Your task to perform on an android device: Show me popular games on the Play Store Image 0: 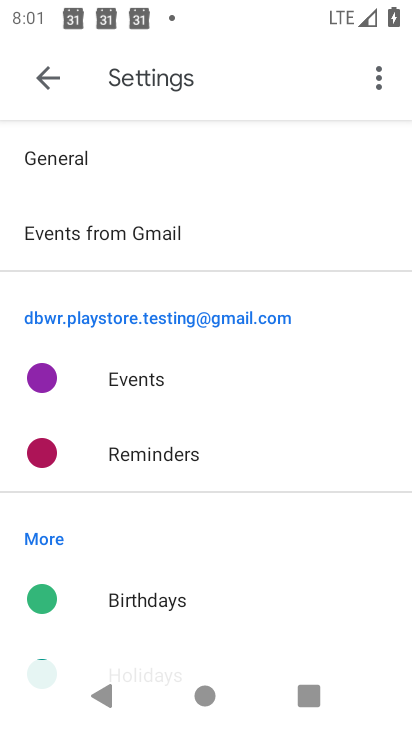
Step 0: press home button
Your task to perform on an android device: Show me popular games on the Play Store Image 1: 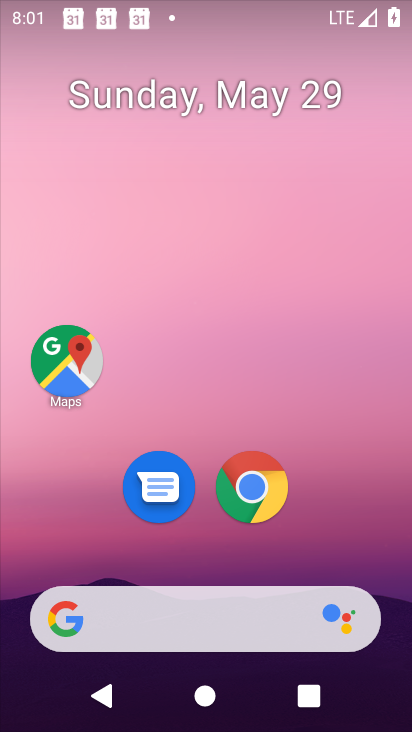
Step 1: drag from (23, 599) to (78, 2)
Your task to perform on an android device: Show me popular games on the Play Store Image 2: 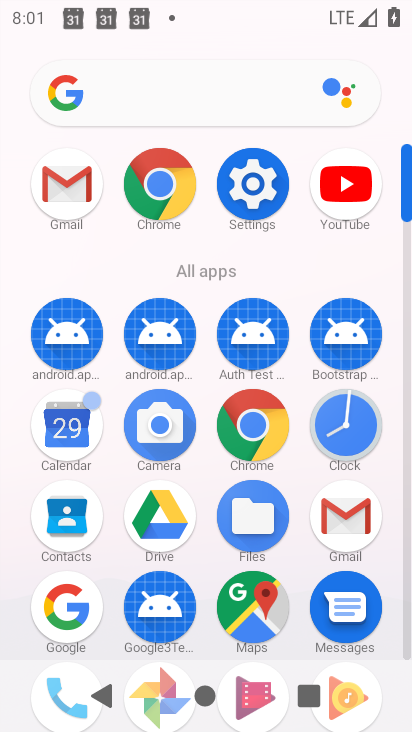
Step 2: drag from (262, 570) to (272, 264)
Your task to perform on an android device: Show me popular games on the Play Store Image 3: 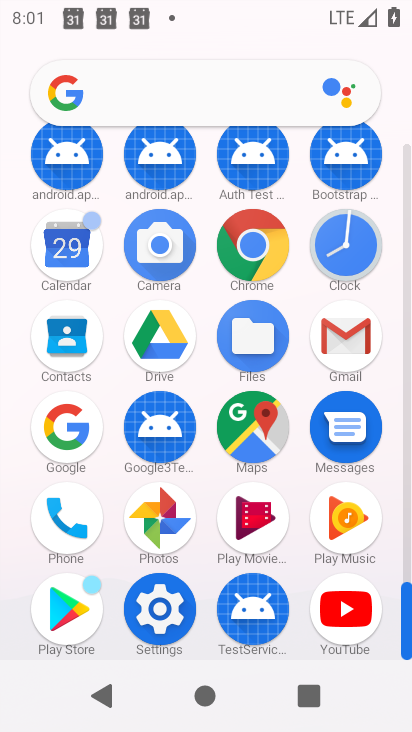
Step 3: click (58, 621)
Your task to perform on an android device: Show me popular games on the Play Store Image 4: 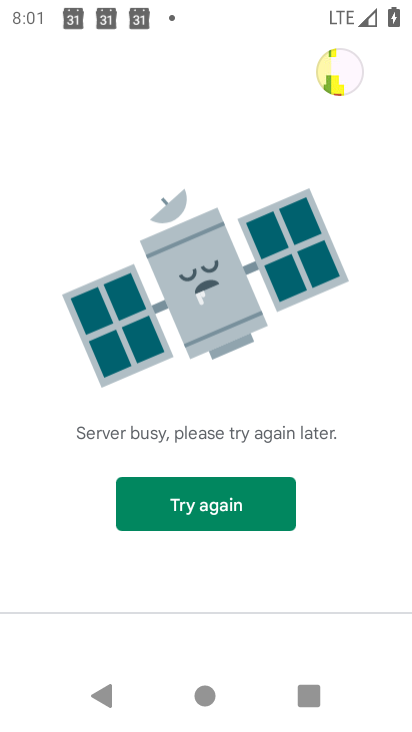
Step 4: click (234, 513)
Your task to perform on an android device: Show me popular games on the Play Store Image 5: 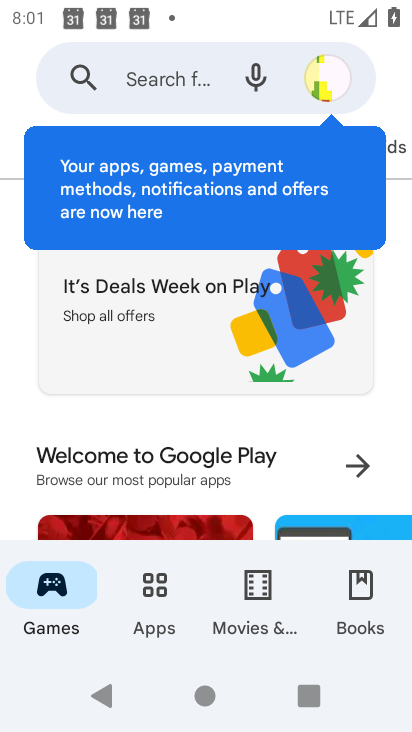
Step 5: task complete